Your task to perform on an android device: Open Google Maps and go to "Timeline" Image 0: 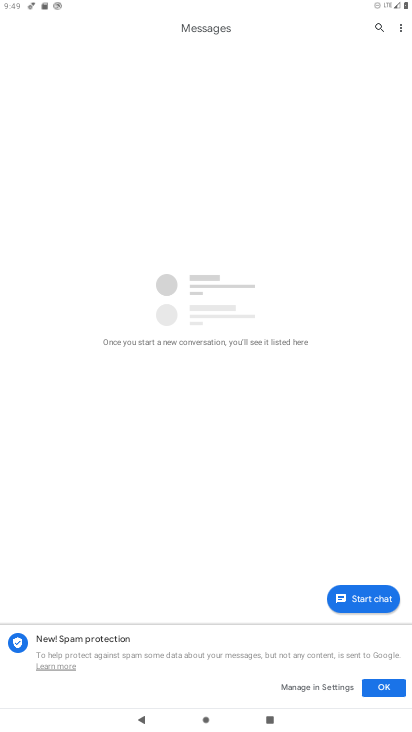
Step 0: press home button
Your task to perform on an android device: Open Google Maps and go to "Timeline" Image 1: 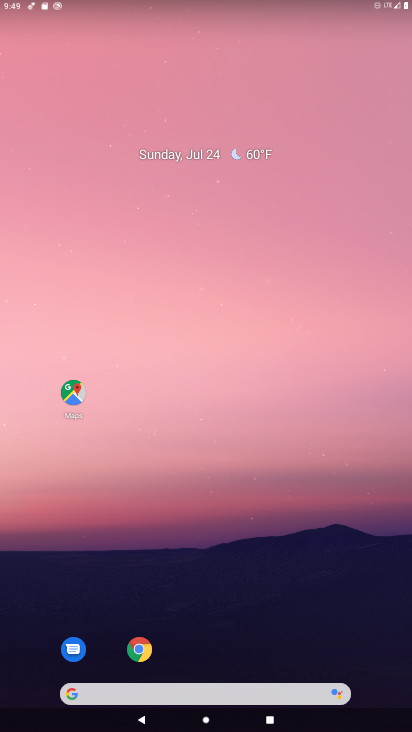
Step 1: drag from (308, 628) to (273, 195)
Your task to perform on an android device: Open Google Maps and go to "Timeline" Image 2: 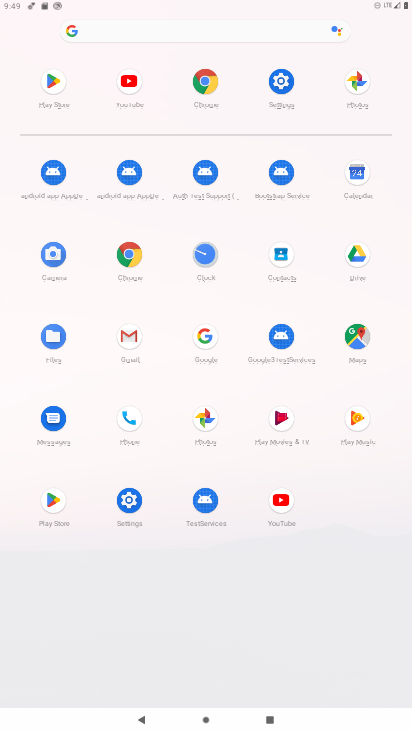
Step 2: click (359, 336)
Your task to perform on an android device: Open Google Maps and go to "Timeline" Image 3: 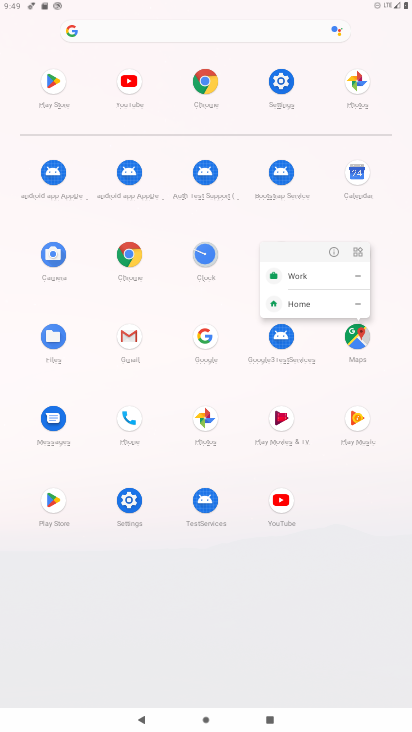
Step 3: click (355, 341)
Your task to perform on an android device: Open Google Maps and go to "Timeline" Image 4: 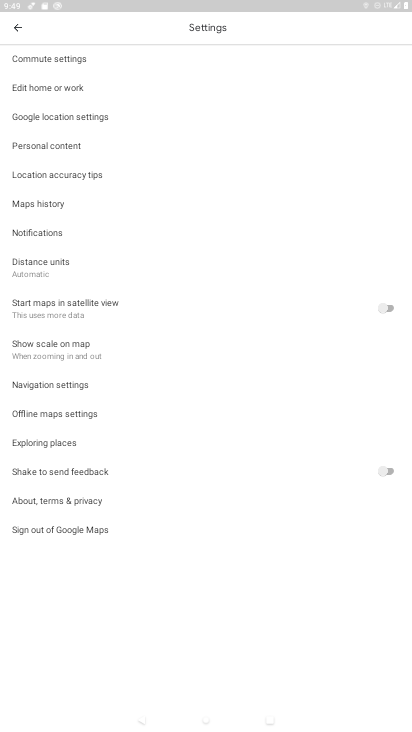
Step 4: click (9, 23)
Your task to perform on an android device: Open Google Maps and go to "Timeline" Image 5: 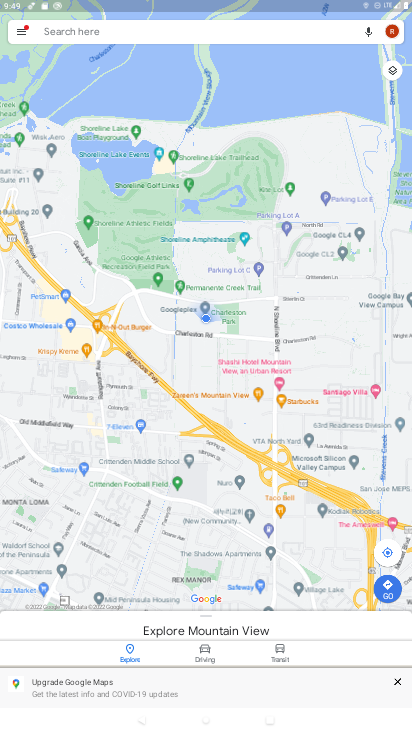
Step 5: click (18, 33)
Your task to perform on an android device: Open Google Maps and go to "Timeline" Image 6: 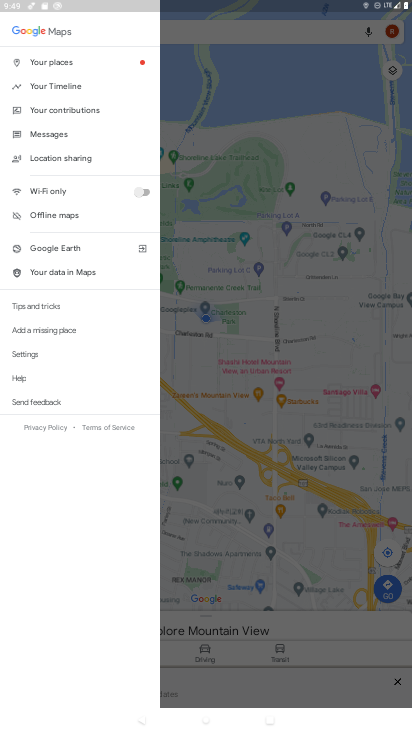
Step 6: click (66, 91)
Your task to perform on an android device: Open Google Maps and go to "Timeline" Image 7: 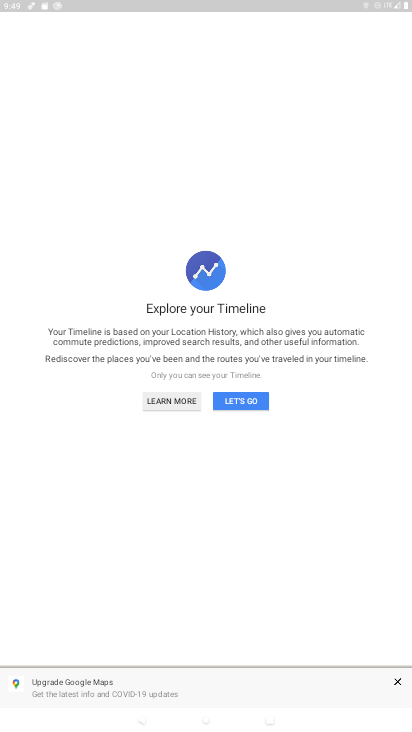
Step 7: click (249, 400)
Your task to perform on an android device: Open Google Maps and go to "Timeline" Image 8: 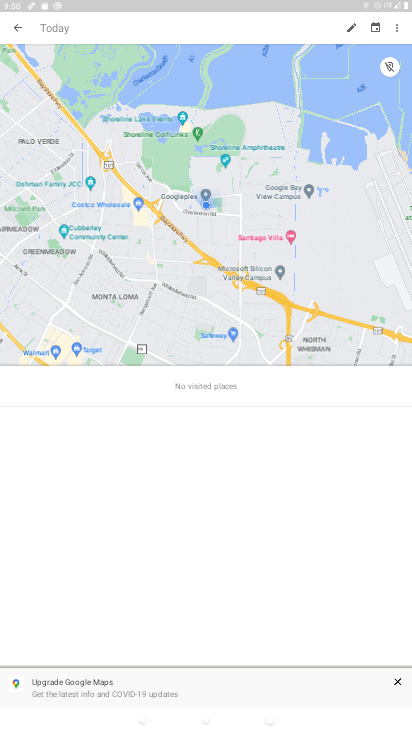
Step 8: task complete